Your task to perform on an android device: turn off location history Image 0: 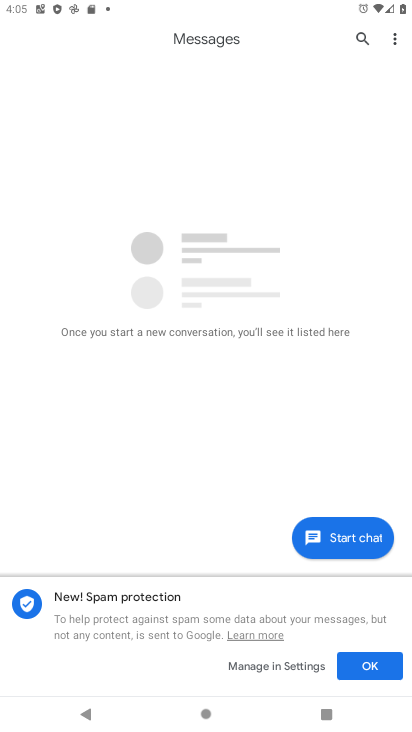
Step 0: press home button
Your task to perform on an android device: turn off location history Image 1: 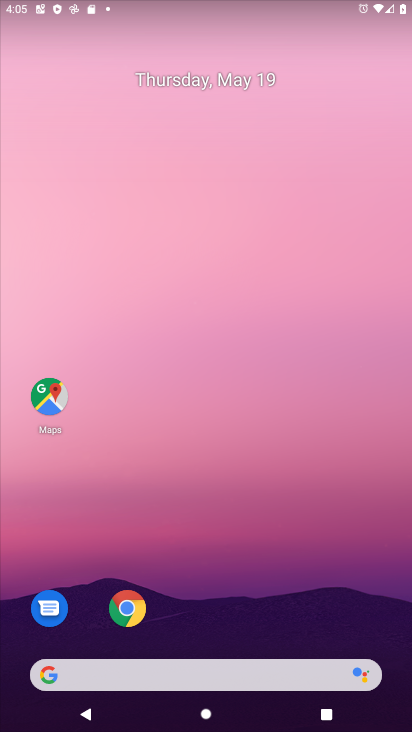
Step 1: drag from (225, 659) to (263, 497)
Your task to perform on an android device: turn off location history Image 2: 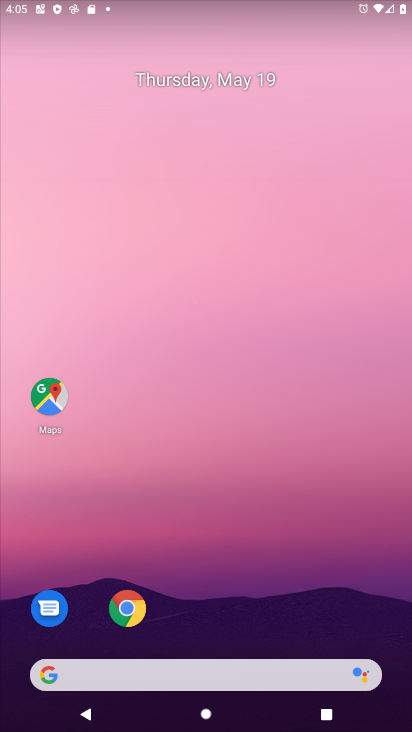
Step 2: drag from (228, 573) to (201, 98)
Your task to perform on an android device: turn off location history Image 3: 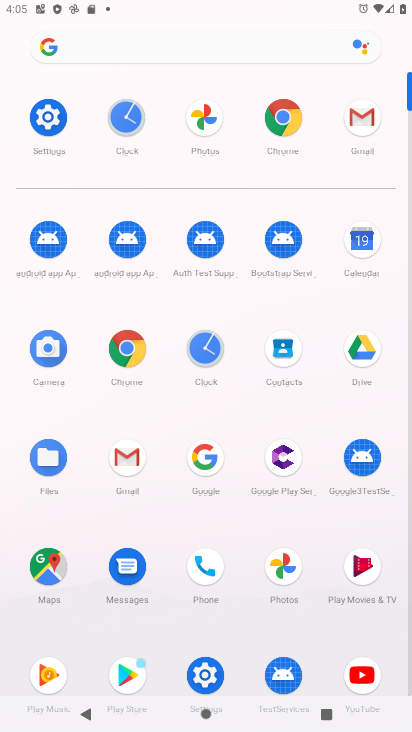
Step 3: click (32, 133)
Your task to perform on an android device: turn off location history Image 4: 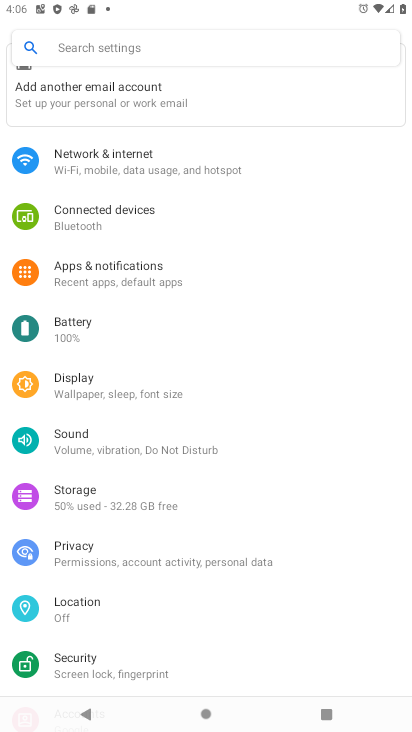
Step 4: click (166, 599)
Your task to perform on an android device: turn off location history Image 5: 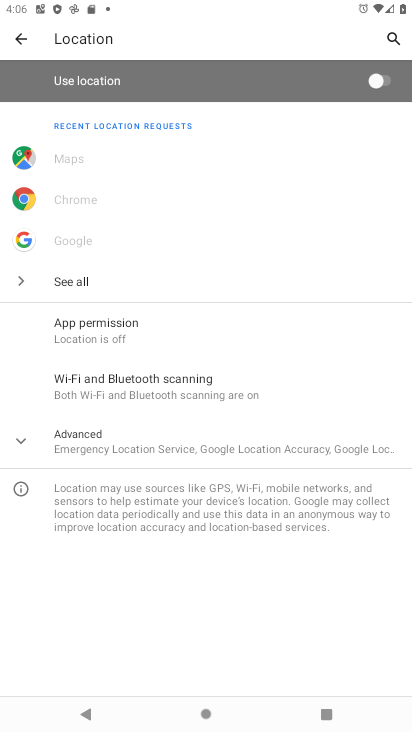
Step 5: click (203, 435)
Your task to perform on an android device: turn off location history Image 6: 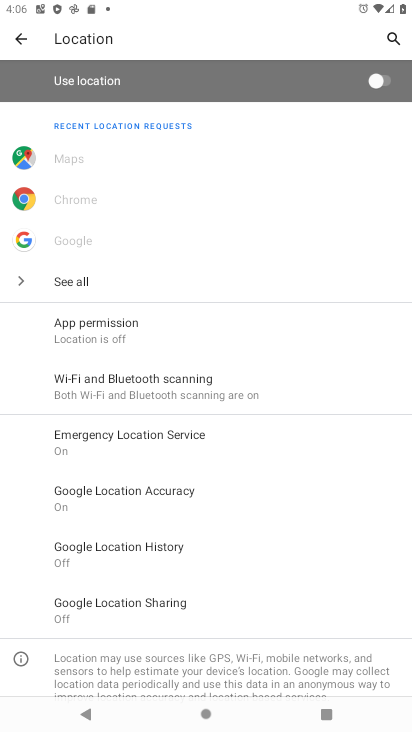
Step 6: click (137, 543)
Your task to perform on an android device: turn off location history Image 7: 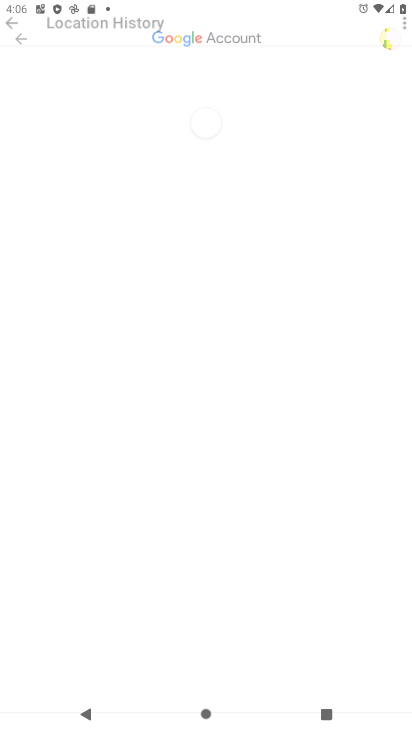
Step 7: task complete